Your task to perform on an android device: turn off location Image 0: 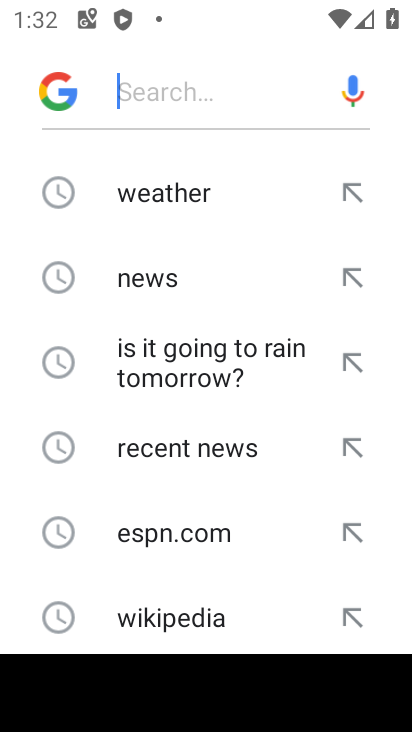
Step 0: press back button
Your task to perform on an android device: turn off location Image 1: 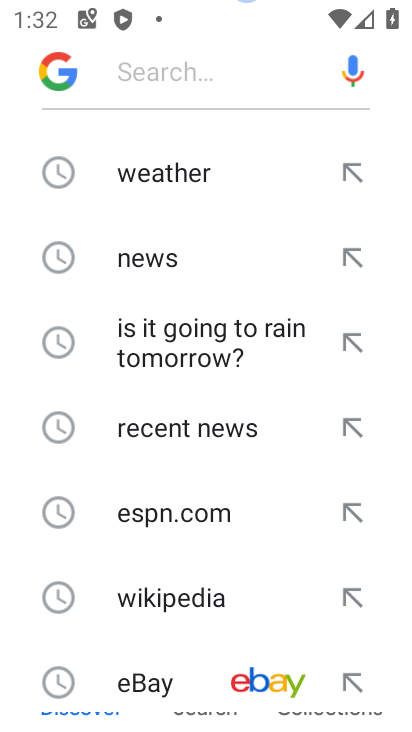
Step 1: press back button
Your task to perform on an android device: turn off location Image 2: 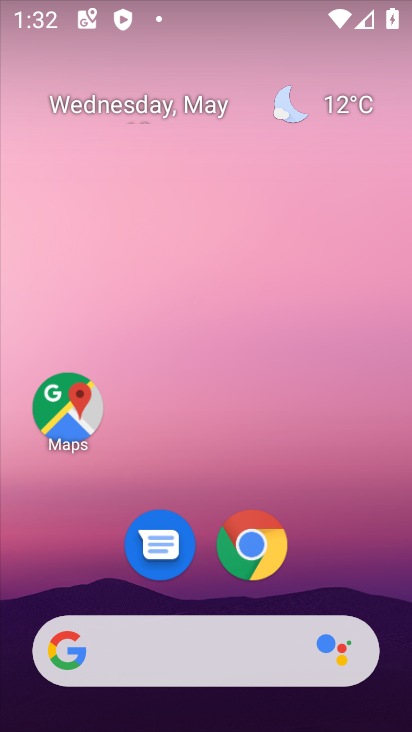
Step 2: drag from (346, 554) to (344, 47)
Your task to perform on an android device: turn off location Image 3: 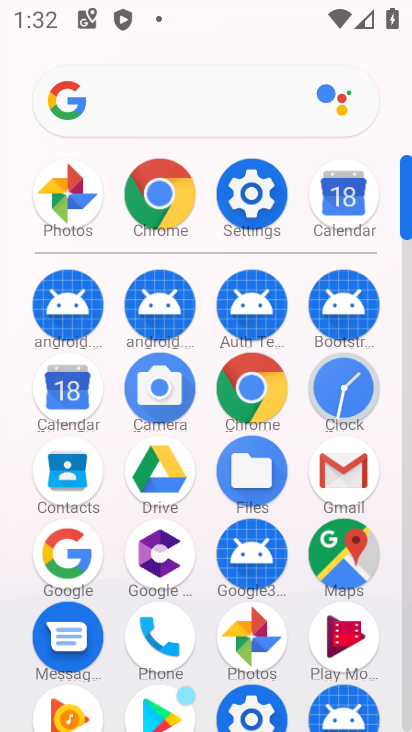
Step 3: click (265, 187)
Your task to perform on an android device: turn off location Image 4: 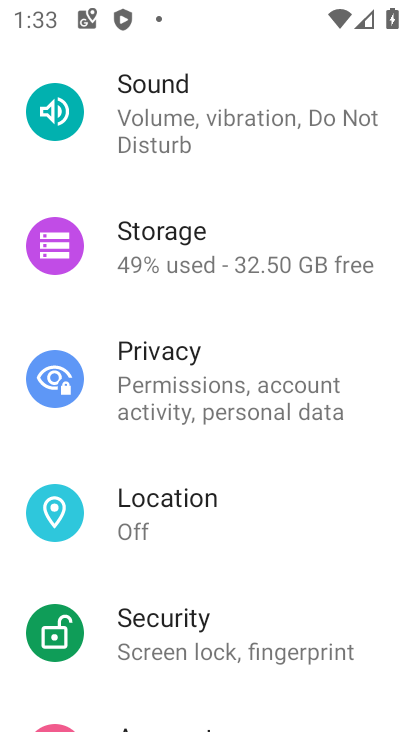
Step 4: click (202, 529)
Your task to perform on an android device: turn off location Image 5: 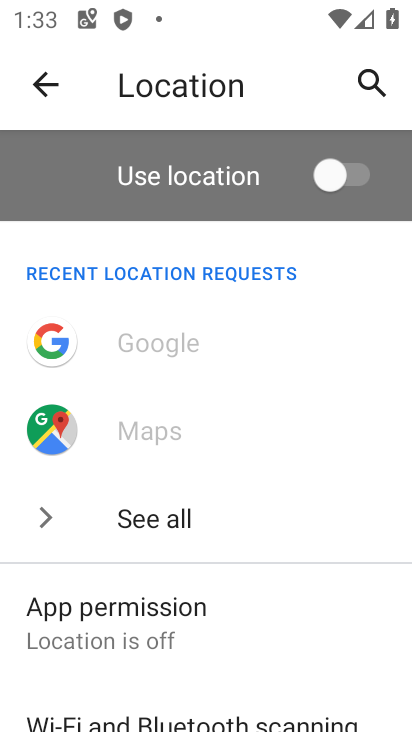
Step 5: task complete